Your task to perform on an android device: Search for seafood restaurants on Google Maps Image 0: 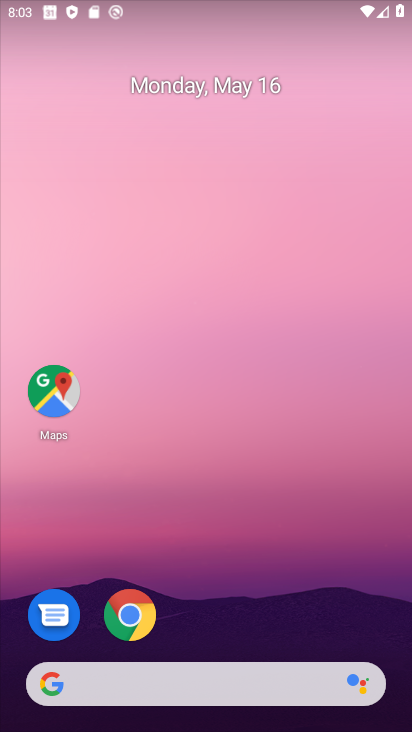
Step 0: click (68, 381)
Your task to perform on an android device: Search for seafood restaurants on Google Maps Image 1: 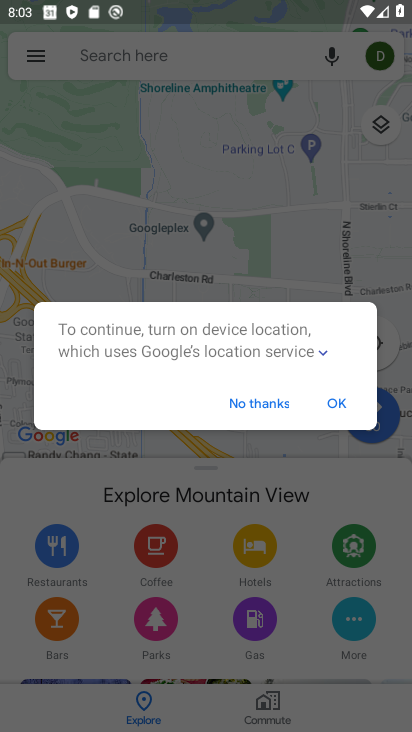
Step 1: click (348, 402)
Your task to perform on an android device: Search for seafood restaurants on Google Maps Image 2: 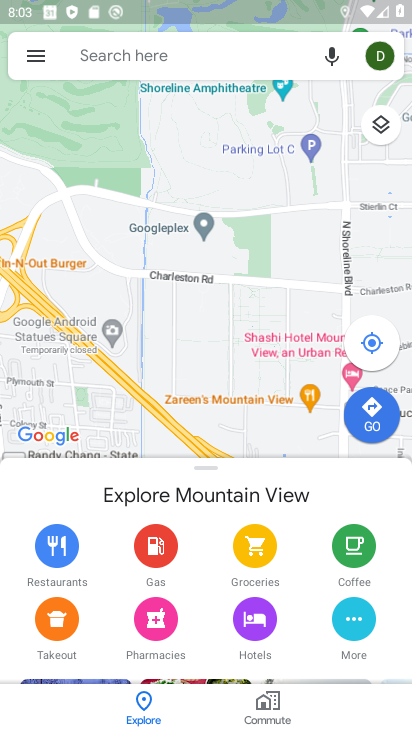
Step 2: click (184, 54)
Your task to perform on an android device: Search for seafood restaurants on Google Maps Image 3: 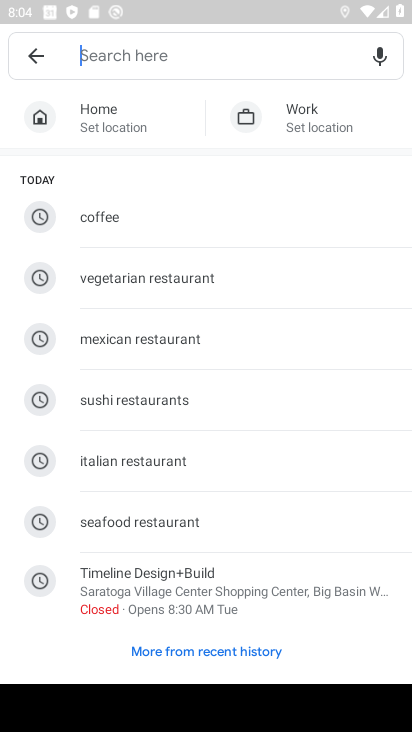
Step 3: click (137, 522)
Your task to perform on an android device: Search for seafood restaurants on Google Maps Image 4: 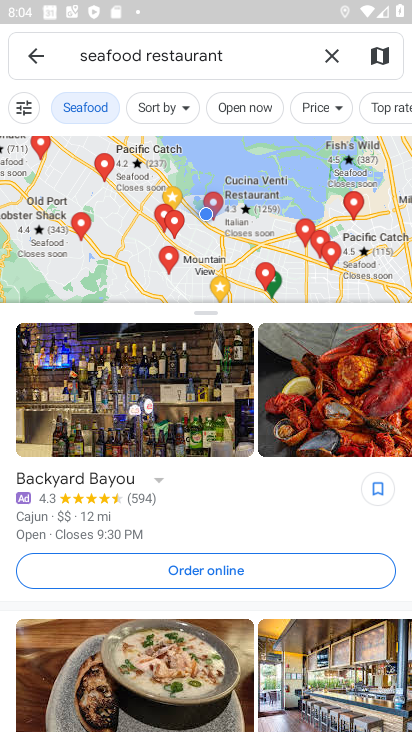
Step 4: task complete